Your task to perform on an android device: Go to location settings Image 0: 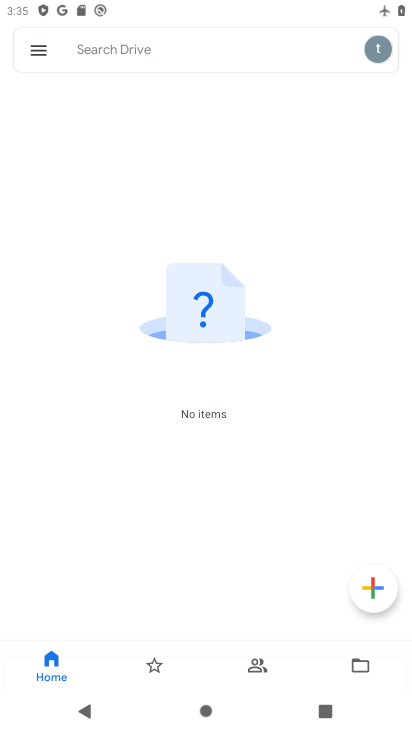
Step 0: press home button
Your task to perform on an android device: Go to location settings Image 1: 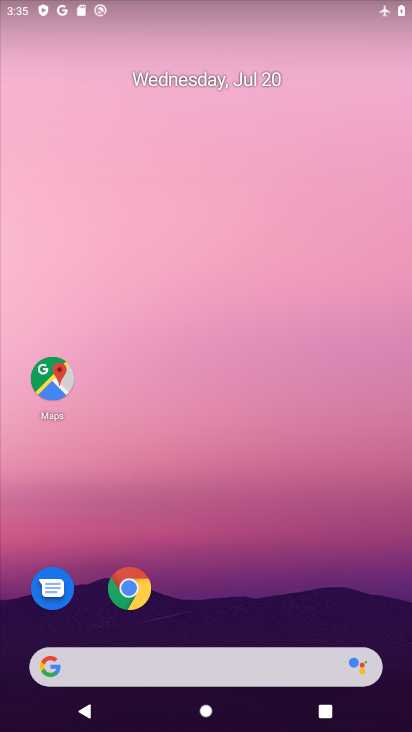
Step 1: drag from (165, 625) to (257, 10)
Your task to perform on an android device: Go to location settings Image 2: 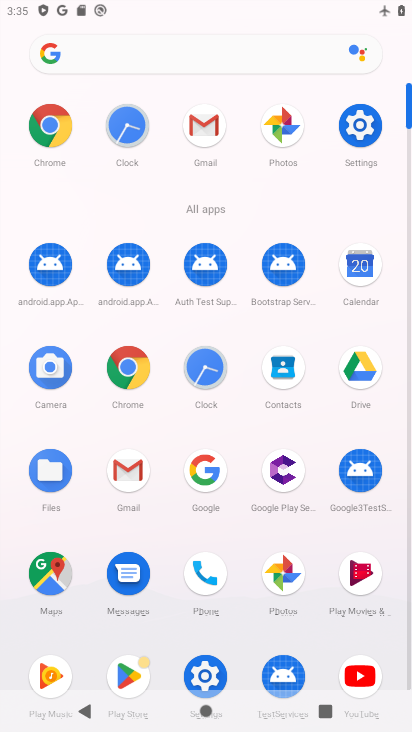
Step 2: click (351, 124)
Your task to perform on an android device: Go to location settings Image 3: 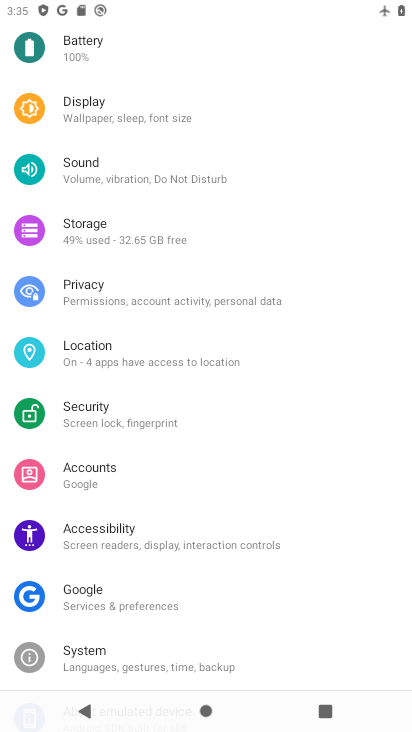
Step 3: click (188, 371)
Your task to perform on an android device: Go to location settings Image 4: 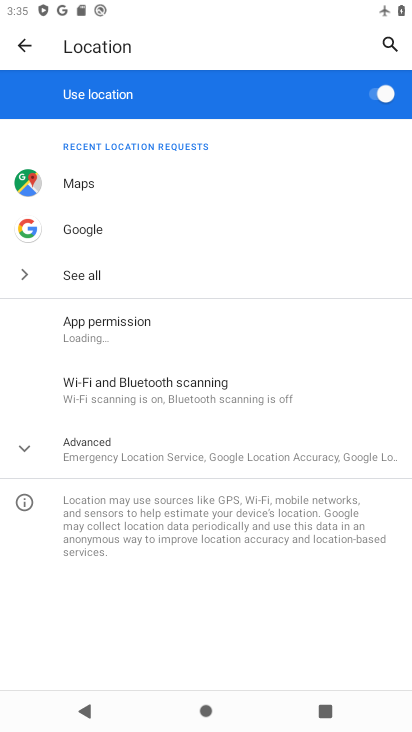
Step 4: task complete